Your task to perform on an android device: Is it going to rain this weekend? Image 0: 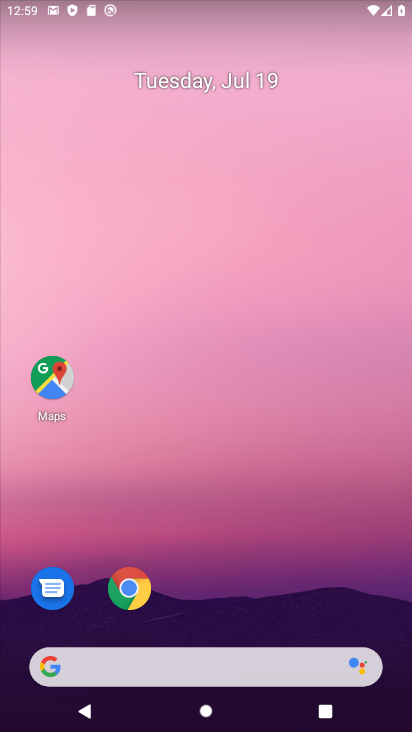
Step 0: click (92, 665)
Your task to perform on an android device: Is it going to rain this weekend? Image 1: 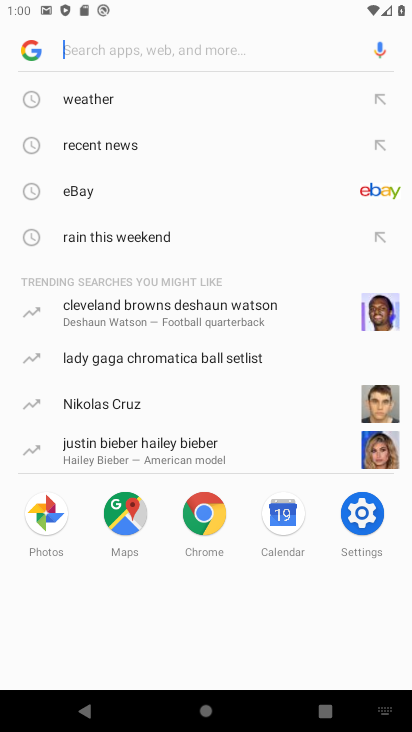
Step 1: type "Is it going to rain this weekend?"
Your task to perform on an android device: Is it going to rain this weekend? Image 2: 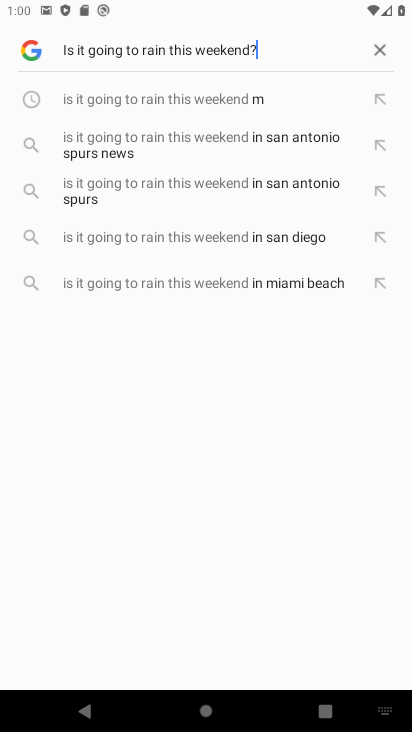
Step 2: type ""
Your task to perform on an android device: Is it going to rain this weekend? Image 3: 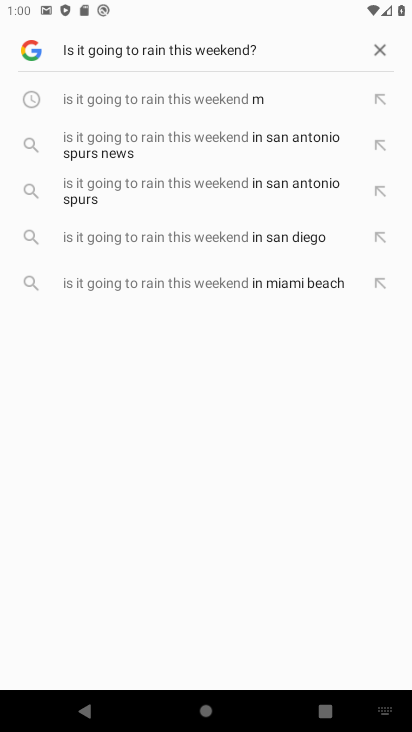
Step 3: task complete